Your task to perform on an android device: Open ESPN.com Image 0: 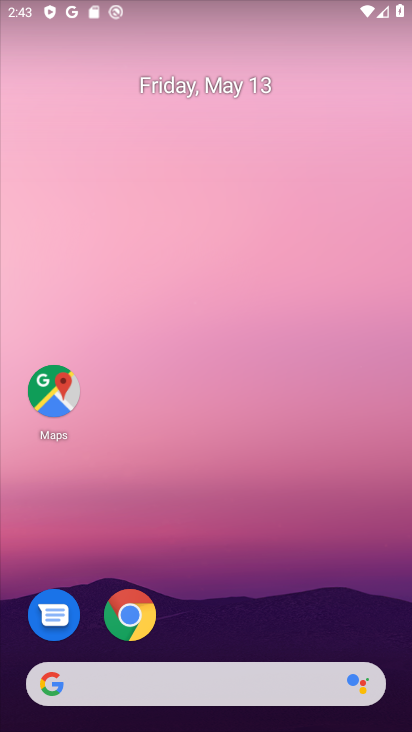
Step 0: click (134, 617)
Your task to perform on an android device: Open ESPN.com Image 1: 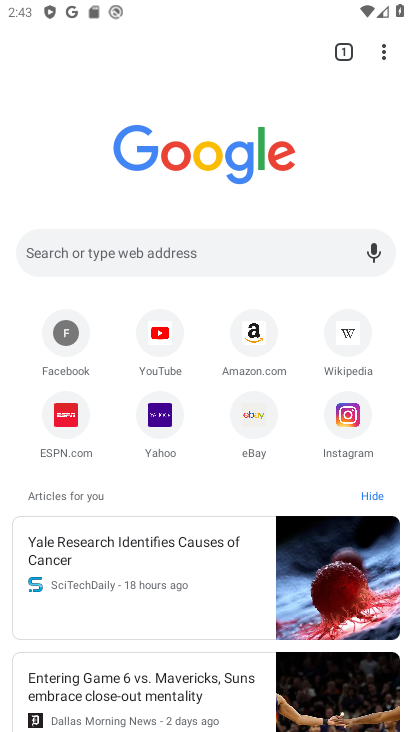
Step 1: click (70, 408)
Your task to perform on an android device: Open ESPN.com Image 2: 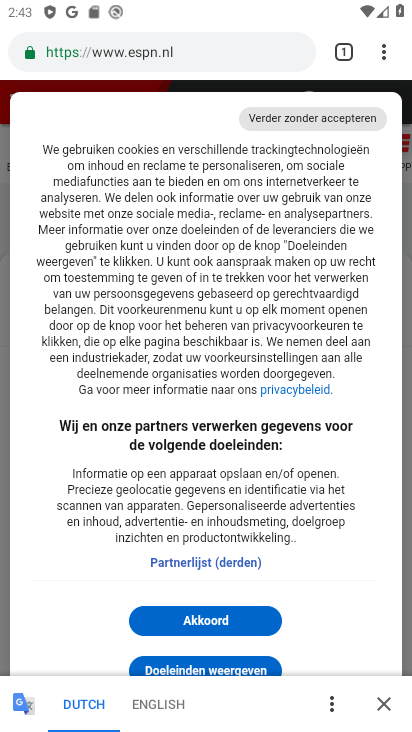
Step 2: task complete